Your task to perform on an android device: Go to settings Image 0: 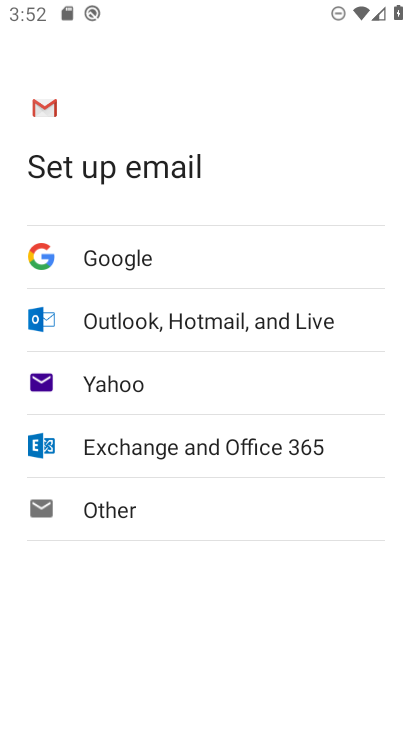
Step 0: press back button
Your task to perform on an android device: Go to settings Image 1: 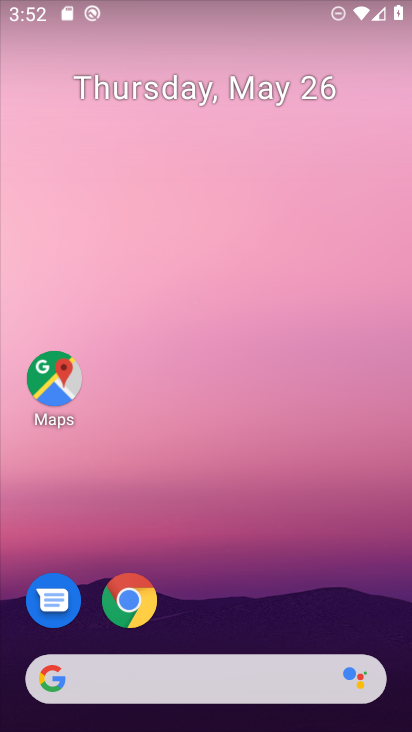
Step 1: drag from (256, 600) to (190, 13)
Your task to perform on an android device: Go to settings Image 2: 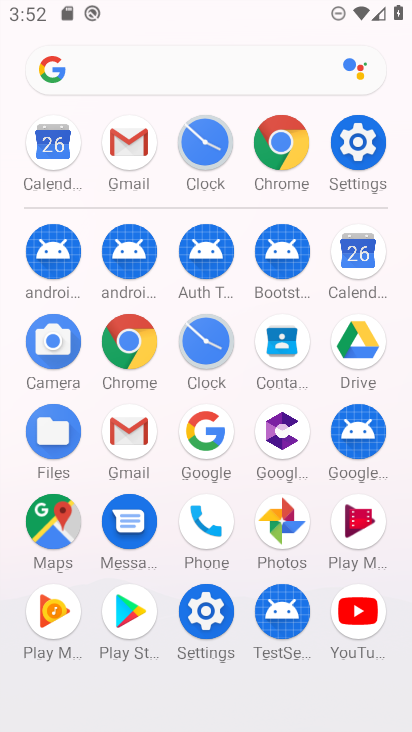
Step 2: click (199, 607)
Your task to perform on an android device: Go to settings Image 3: 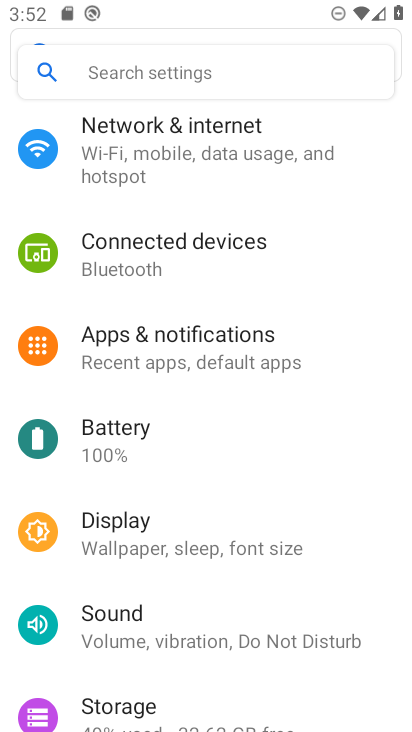
Step 3: task complete